Your task to perform on an android device: Go to privacy settings Image 0: 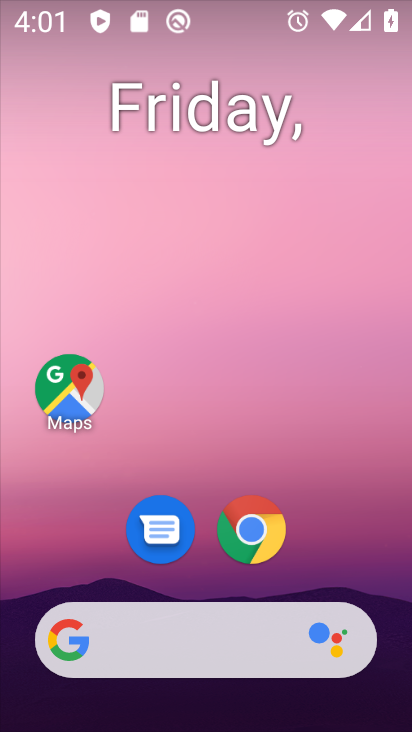
Step 0: click (244, 552)
Your task to perform on an android device: Go to privacy settings Image 1: 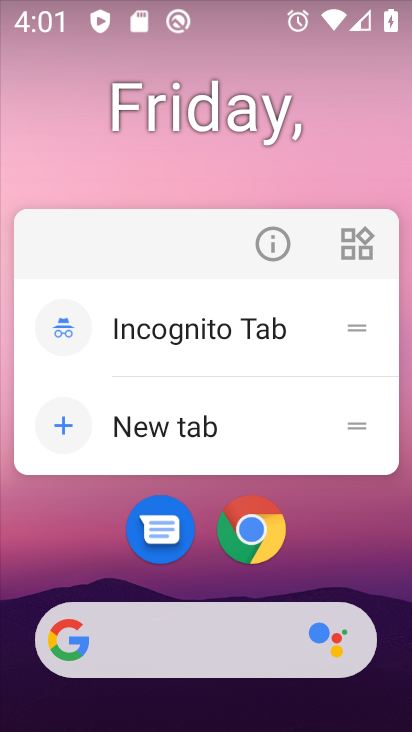
Step 1: click (252, 542)
Your task to perform on an android device: Go to privacy settings Image 2: 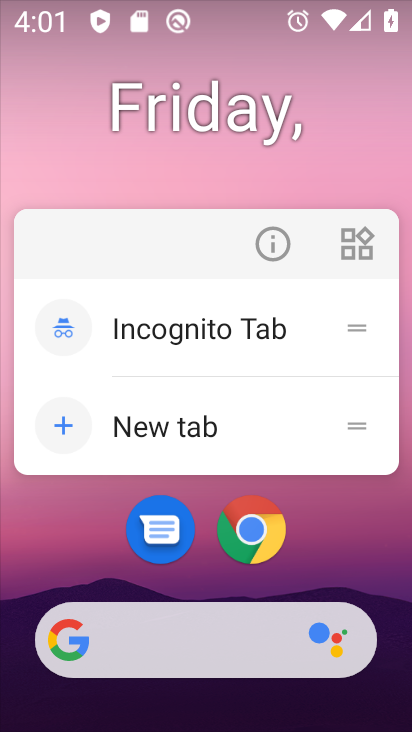
Step 2: click (258, 531)
Your task to perform on an android device: Go to privacy settings Image 3: 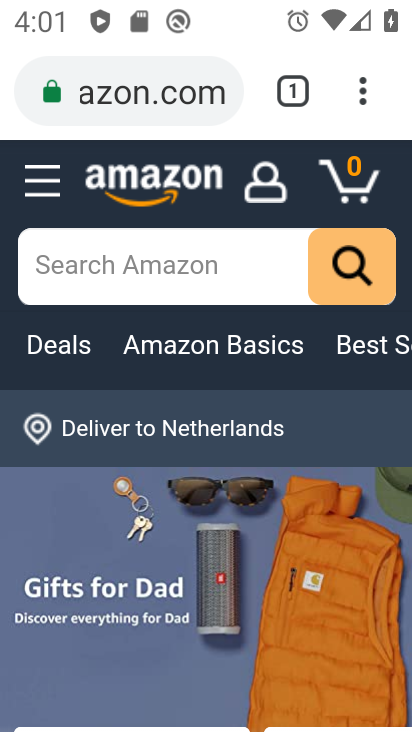
Step 3: drag from (378, 106) to (240, 563)
Your task to perform on an android device: Go to privacy settings Image 4: 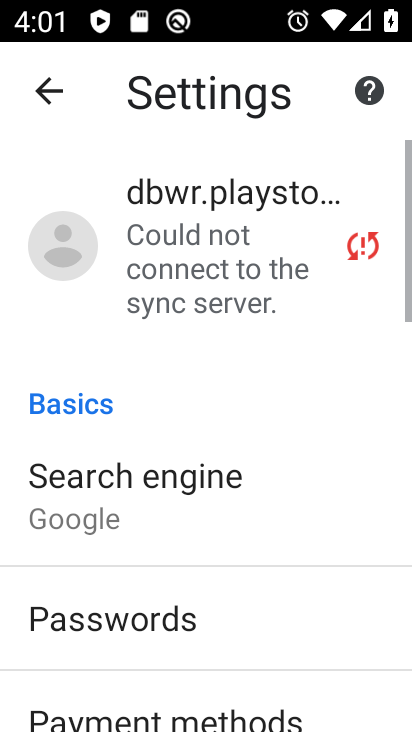
Step 4: drag from (198, 636) to (299, 233)
Your task to perform on an android device: Go to privacy settings Image 5: 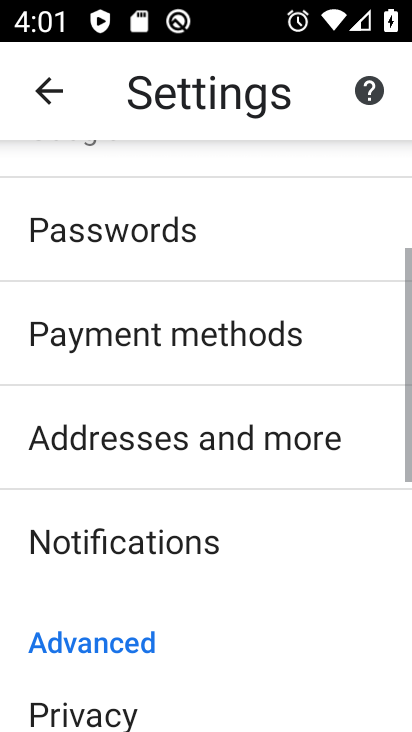
Step 5: drag from (199, 619) to (282, 304)
Your task to perform on an android device: Go to privacy settings Image 6: 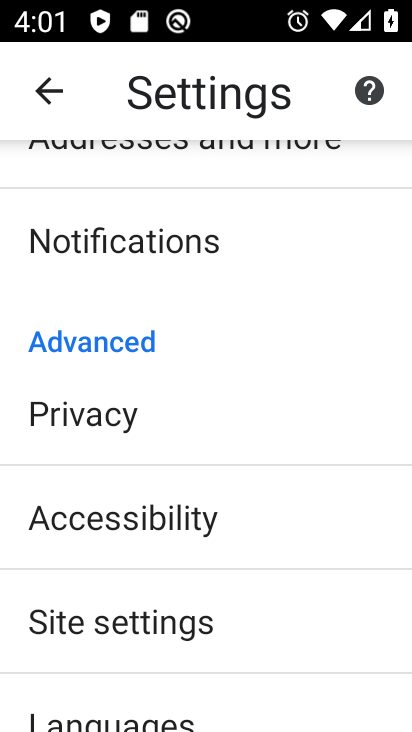
Step 6: click (182, 423)
Your task to perform on an android device: Go to privacy settings Image 7: 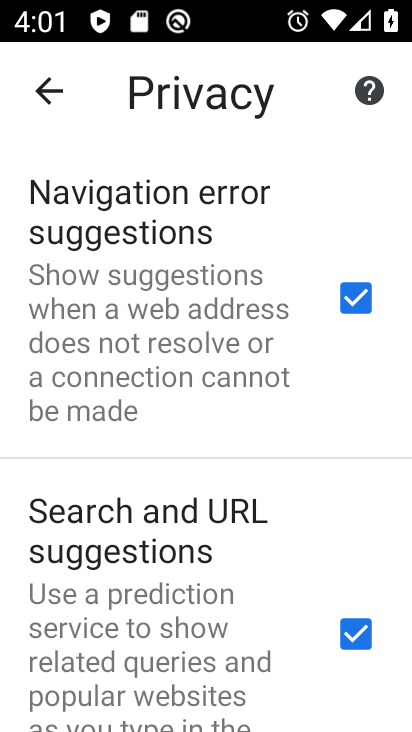
Step 7: task complete